Your task to perform on an android device: open device folders in google photos Image 0: 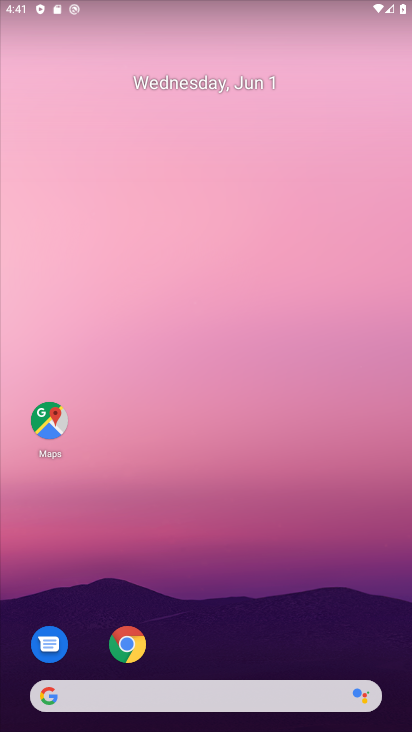
Step 0: drag from (168, 679) to (299, 165)
Your task to perform on an android device: open device folders in google photos Image 1: 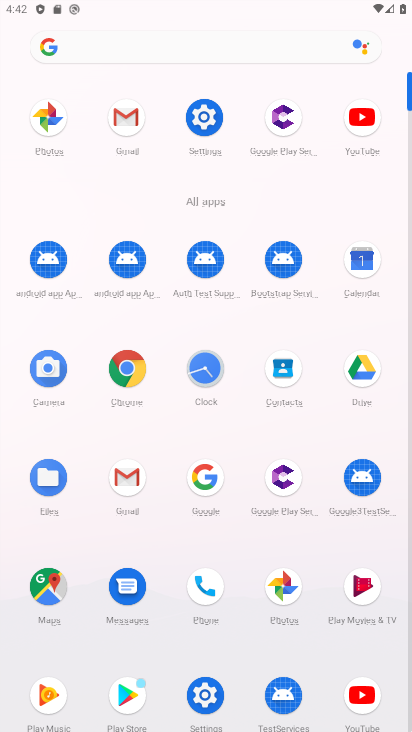
Step 1: click (299, 578)
Your task to perform on an android device: open device folders in google photos Image 2: 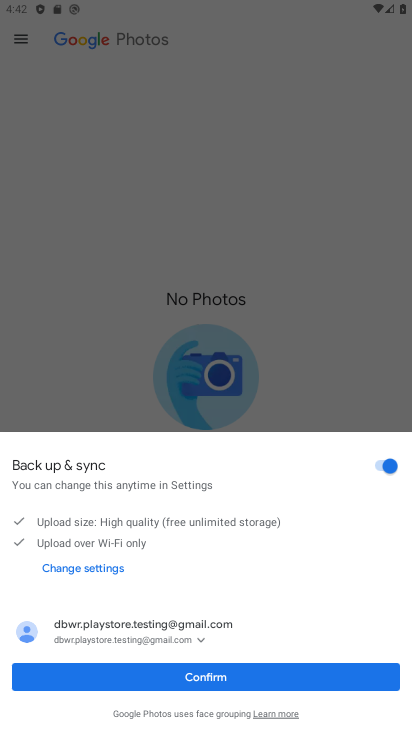
Step 2: click (255, 677)
Your task to perform on an android device: open device folders in google photos Image 3: 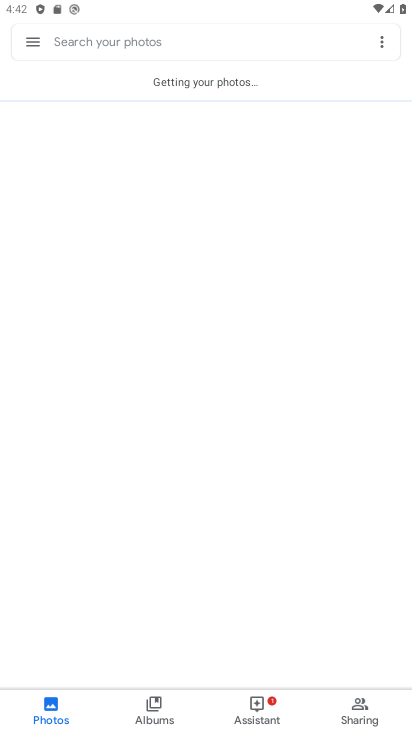
Step 3: click (36, 42)
Your task to perform on an android device: open device folders in google photos Image 4: 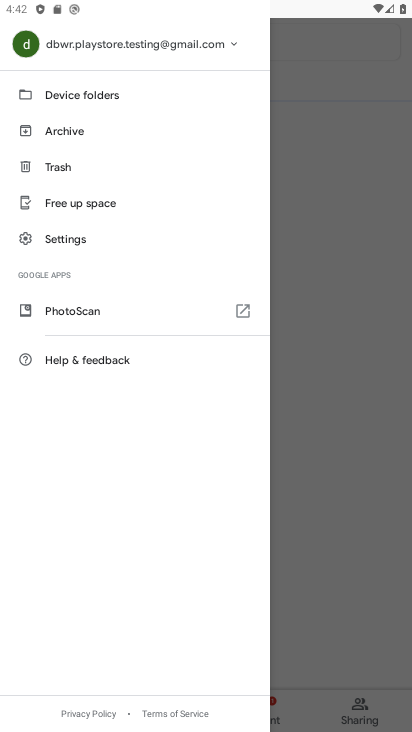
Step 4: click (165, 96)
Your task to perform on an android device: open device folders in google photos Image 5: 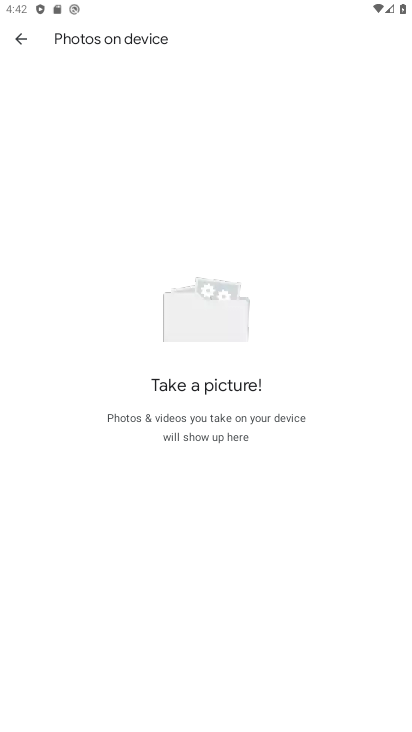
Step 5: task complete